Your task to perform on an android device: Search for "bose quietcomfort 35" on costco.com, select the first entry, add it to the cart, then select checkout. Image 0: 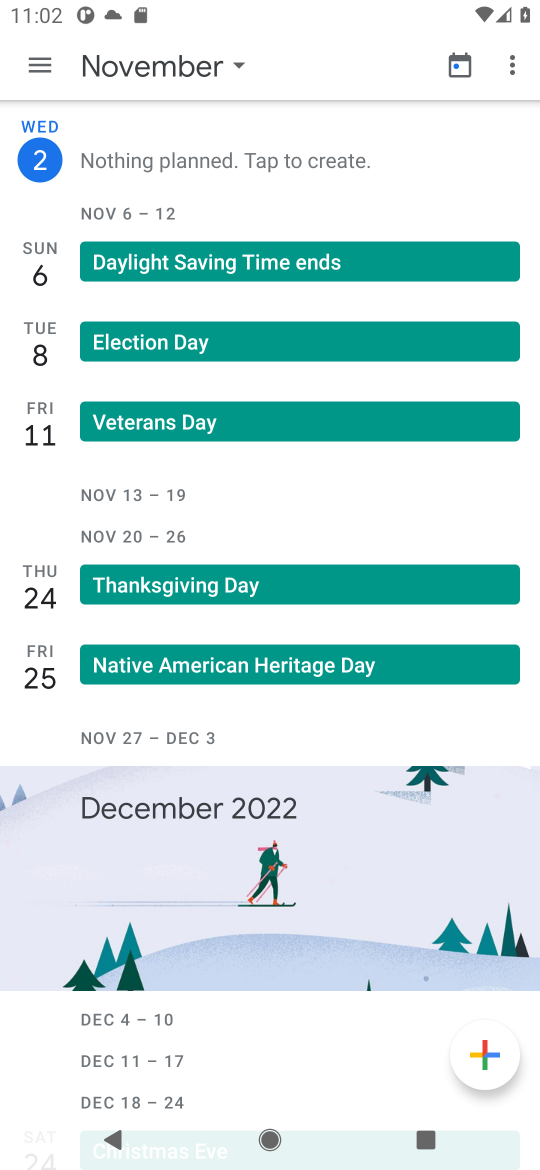
Step 0: press home button
Your task to perform on an android device: Search for "bose quietcomfort 35" on costco.com, select the first entry, add it to the cart, then select checkout. Image 1: 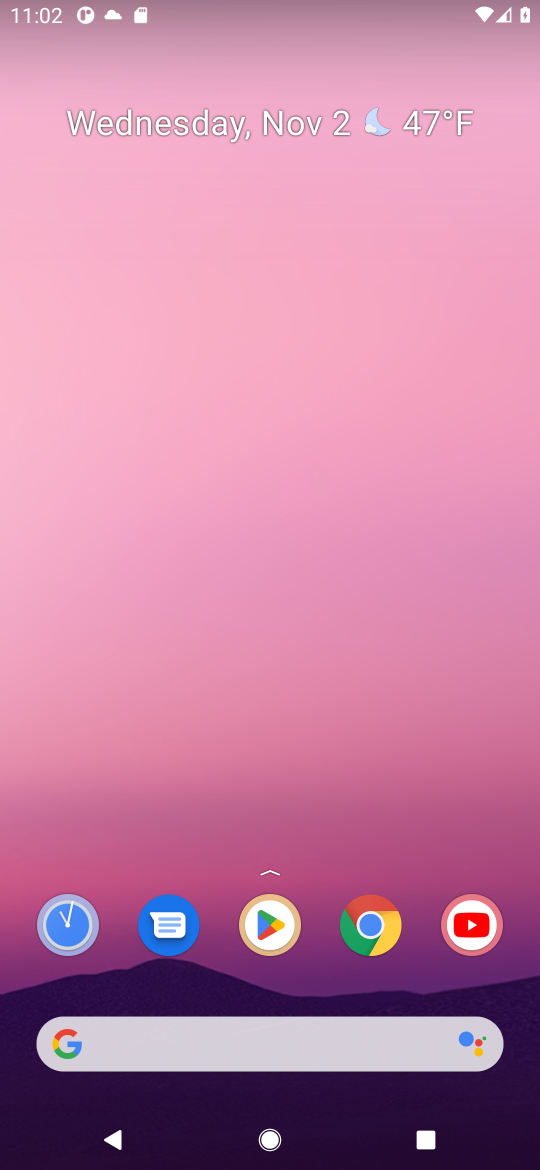
Step 1: click (381, 911)
Your task to perform on an android device: Search for "bose quietcomfort 35" on costco.com, select the first entry, add it to the cart, then select checkout. Image 2: 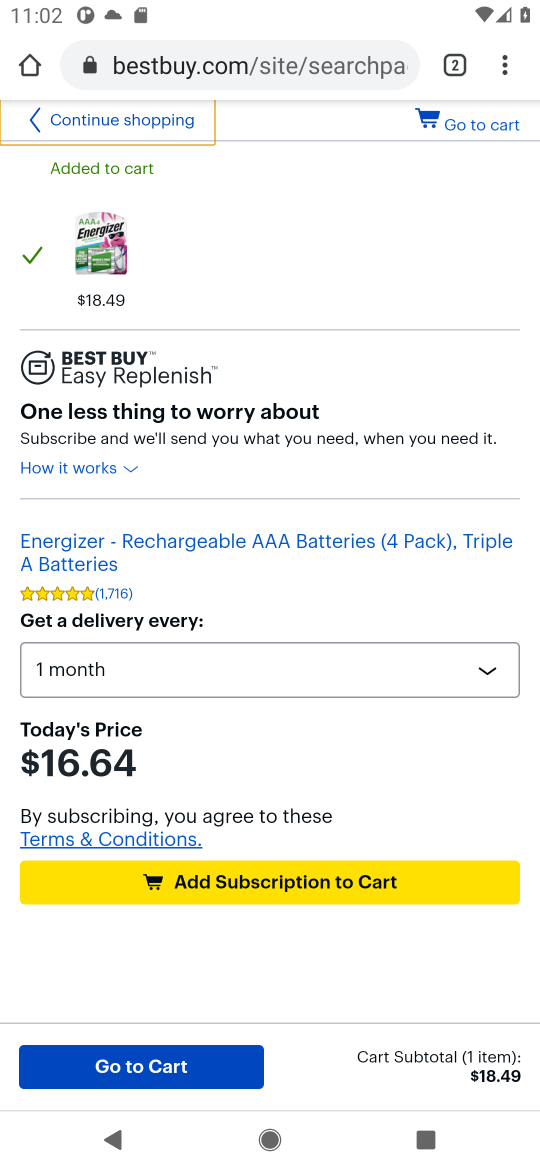
Step 2: click (455, 65)
Your task to perform on an android device: Search for "bose quietcomfort 35" on costco.com, select the first entry, add it to the cart, then select checkout. Image 3: 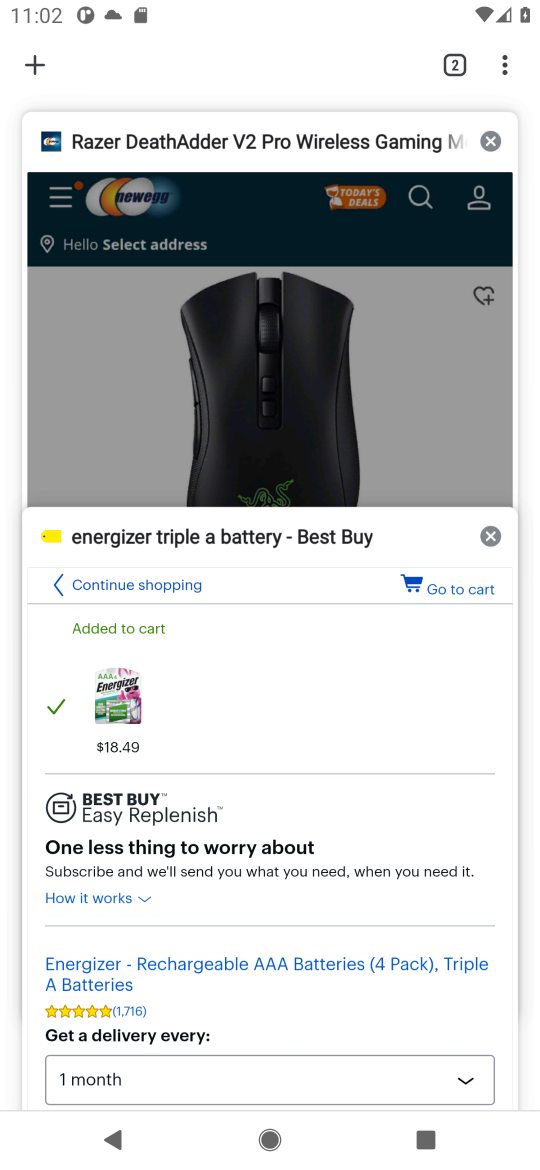
Step 3: click (33, 62)
Your task to perform on an android device: Search for "bose quietcomfort 35" on costco.com, select the first entry, add it to the cart, then select checkout. Image 4: 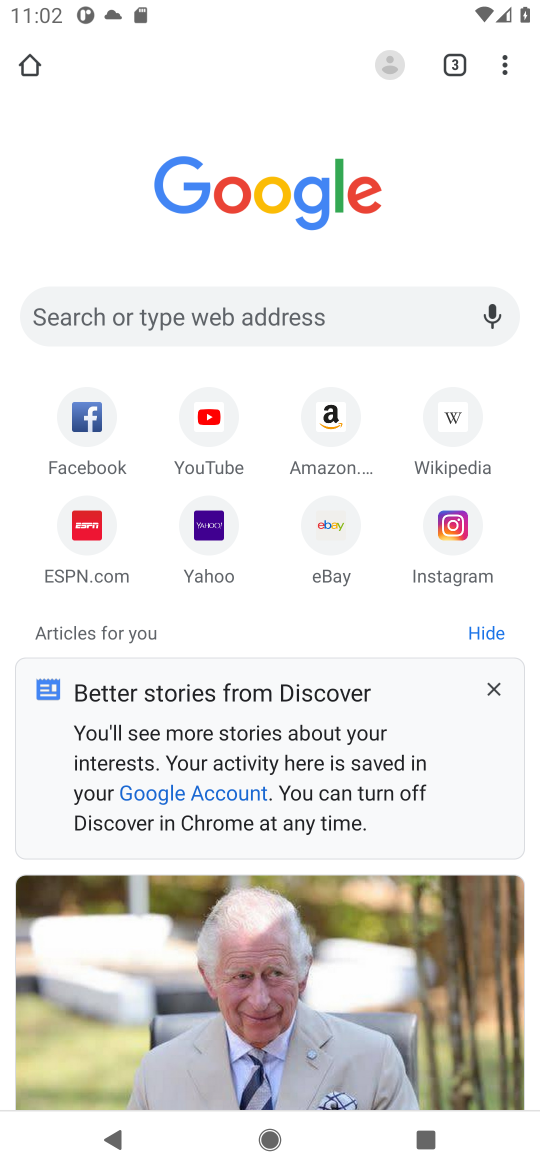
Step 4: click (249, 308)
Your task to perform on an android device: Search for "bose quietcomfort 35" on costco.com, select the first entry, add it to the cart, then select checkout. Image 5: 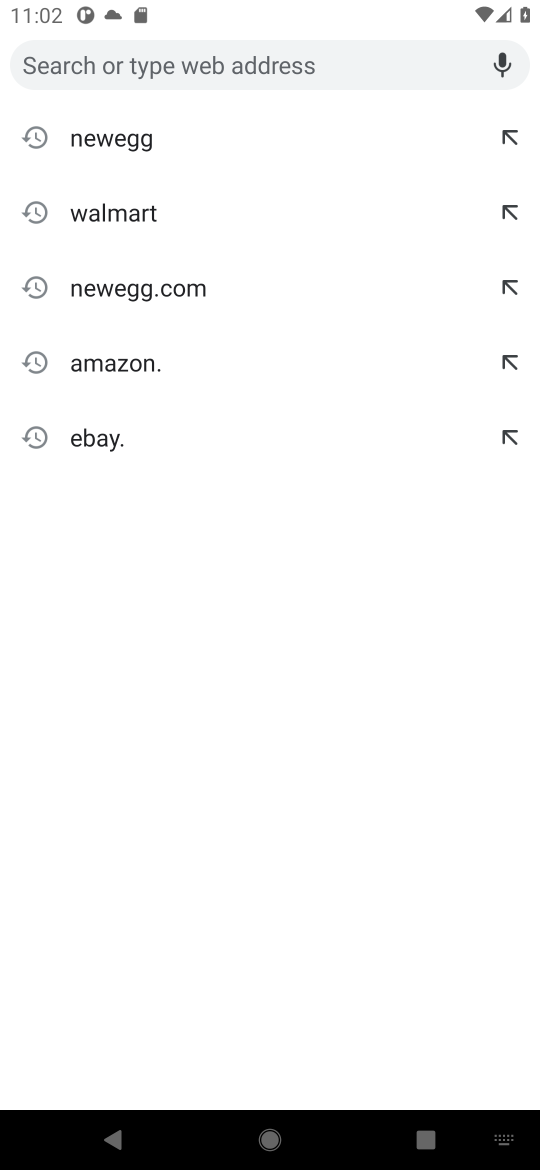
Step 5: type "costco"
Your task to perform on an android device: Search for "bose quietcomfort 35" on costco.com, select the first entry, add it to the cart, then select checkout. Image 6: 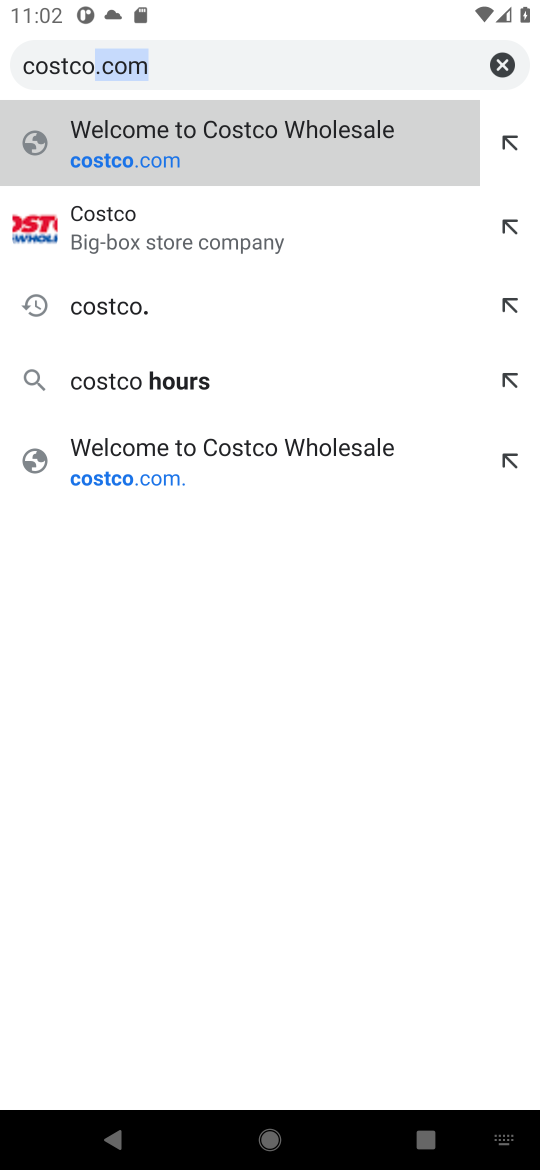
Step 6: click (111, 241)
Your task to perform on an android device: Search for "bose quietcomfort 35" on costco.com, select the first entry, add it to the cart, then select checkout. Image 7: 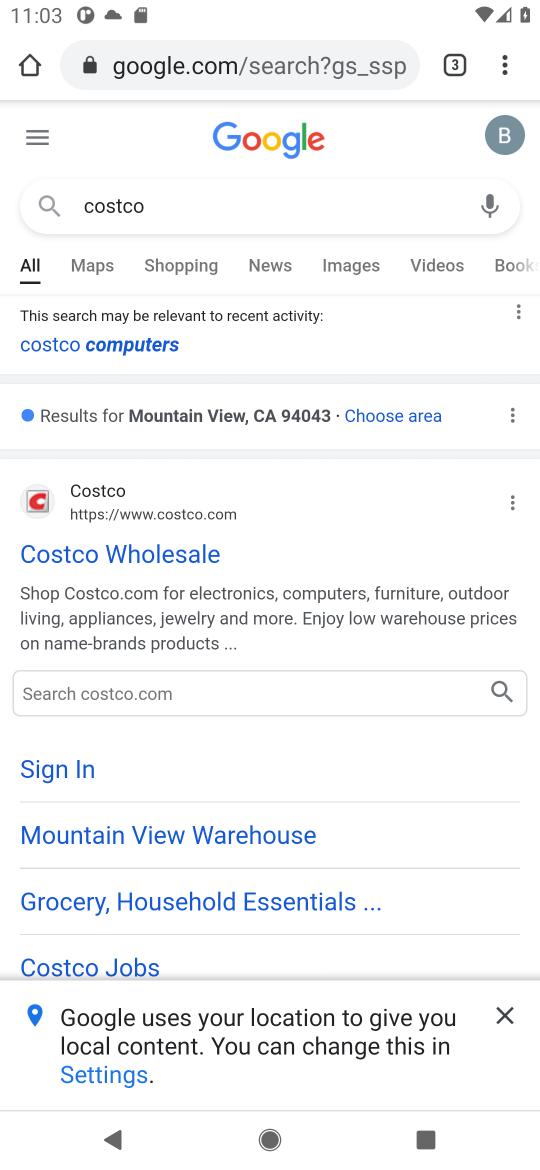
Step 7: click (91, 553)
Your task to perform on an android device: Search for "bose quietcomfort 35" on costco.com, select the first entry, add it to the cart, then select checkout. Image 8: 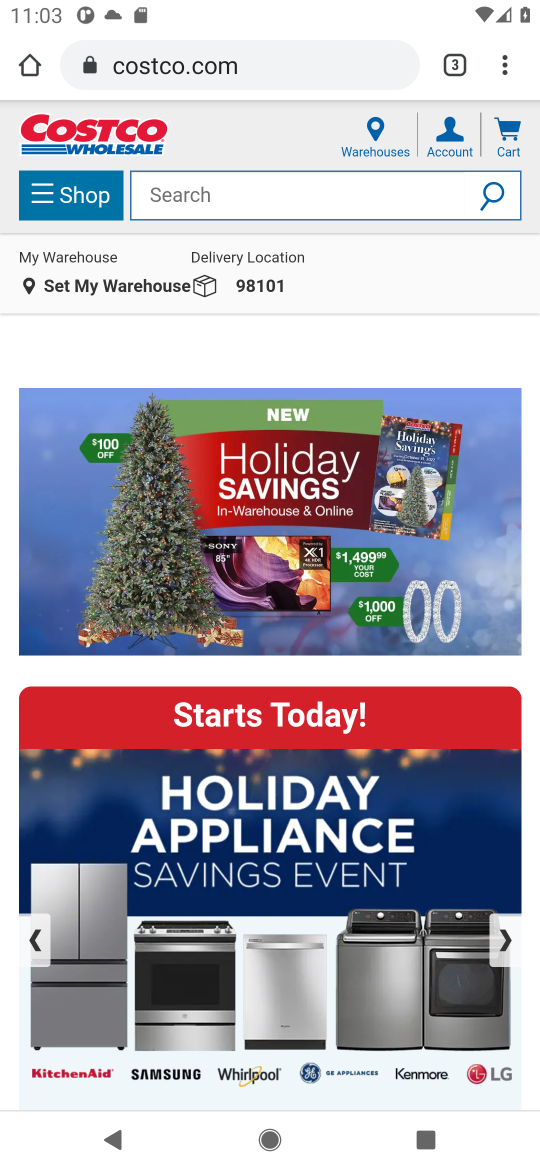
Step 8: click (173, 189)
Your task to perform on an android device: Search for "bose quietcomfort 35" on costco.com, select the first entry, add it to the cart, then select checkout. Image 9: 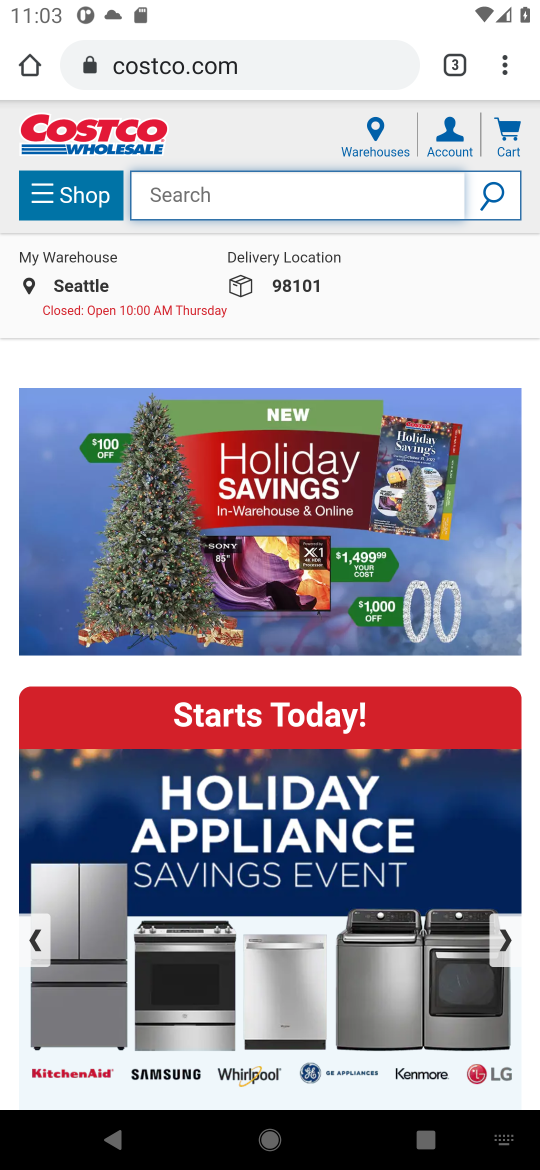
Step 9: type "bose quietcomfort 35"
Your task to perform on an android device: Search for "bose quietcomfort 35" on costco.com, select the first entry, add it to the cart, then select checkout. Image 10: 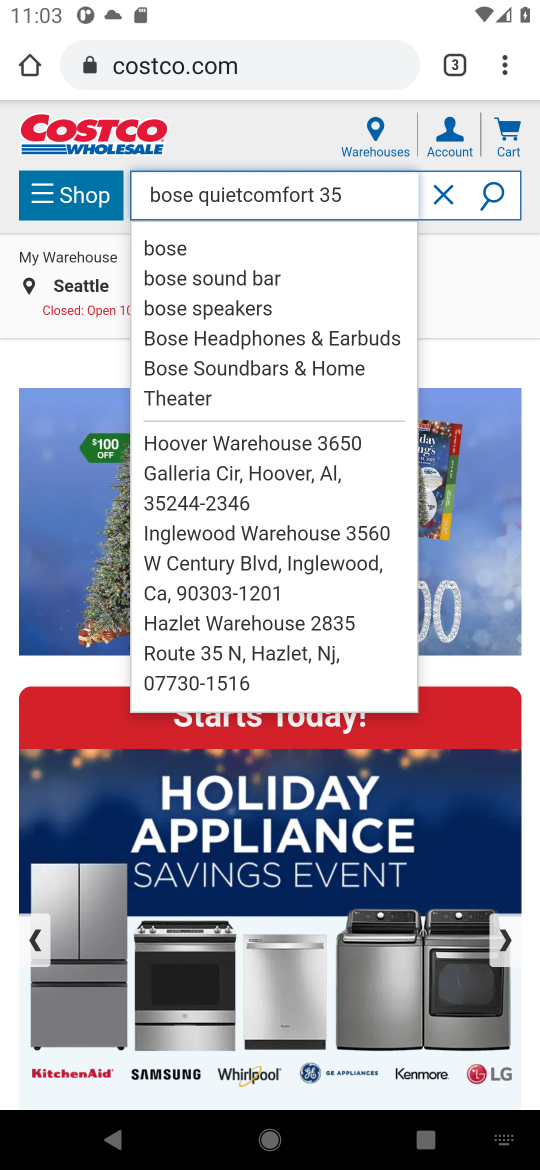
Step 10: click (230, 333)
Your task to perform on an android device: Search for "bose quietcomfort 35" on costco.com, select the first entry, add it to the cart, then select checkout. Image 11: 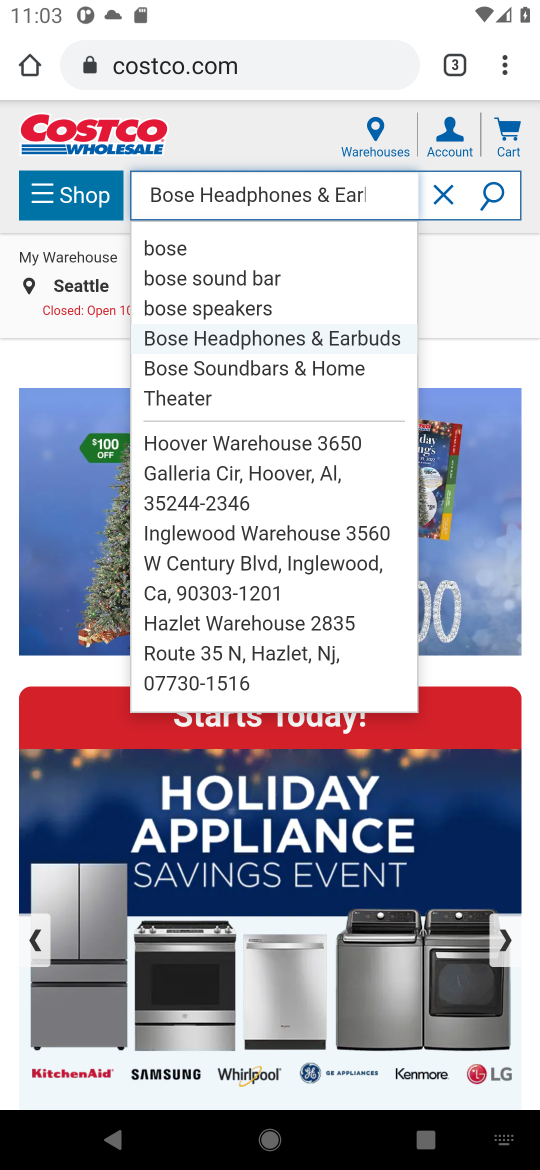
Step 11: click (492, 195)
Your task to perform on an android device: Search for "bose quietcomfort 35" on costco.com, select the first entry, add it to the cart, then select checkout. Image 12: 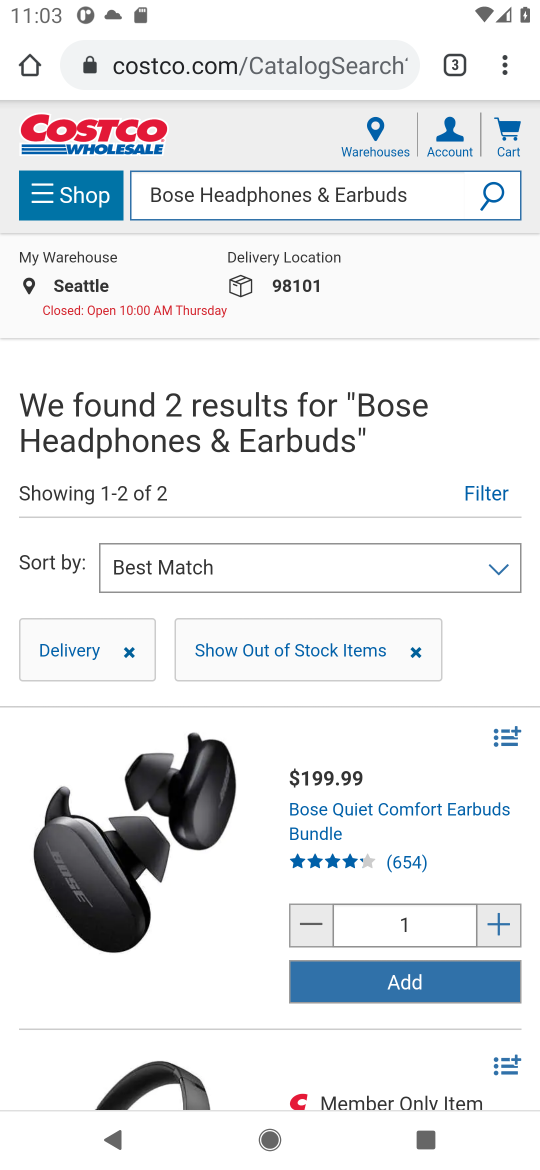
Step 12: click (434, 985)
Your task to perform on an android device: Search for "bose quietcomfort 35" on costco.com, select the first entry, add it to the cart, then select checkout. Image 13: 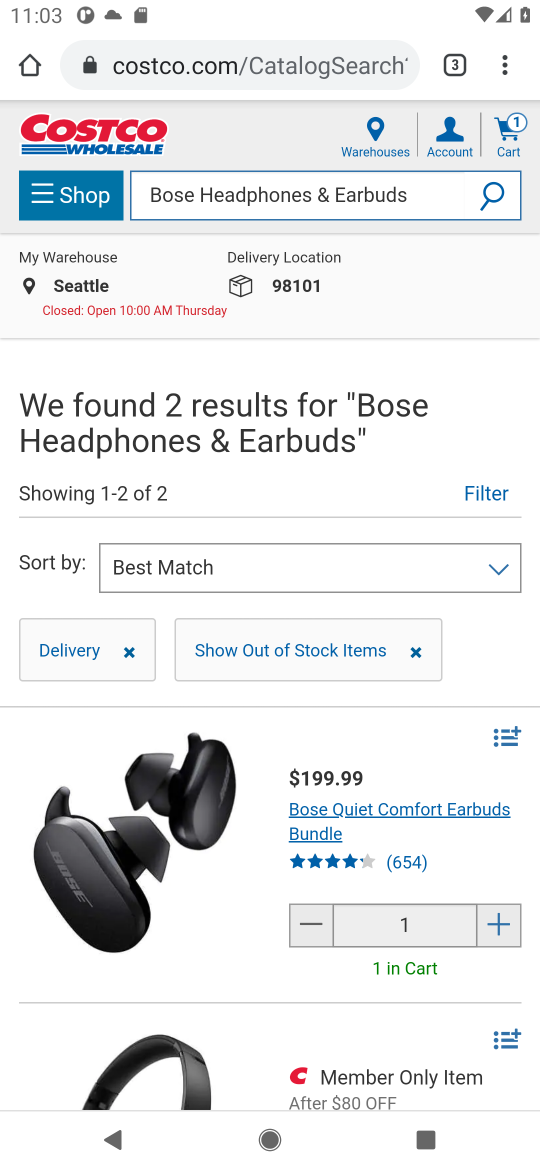
Step 13: task complete